Your task to perform on an android device: Open calendar and show me the third week of next month Image 0: 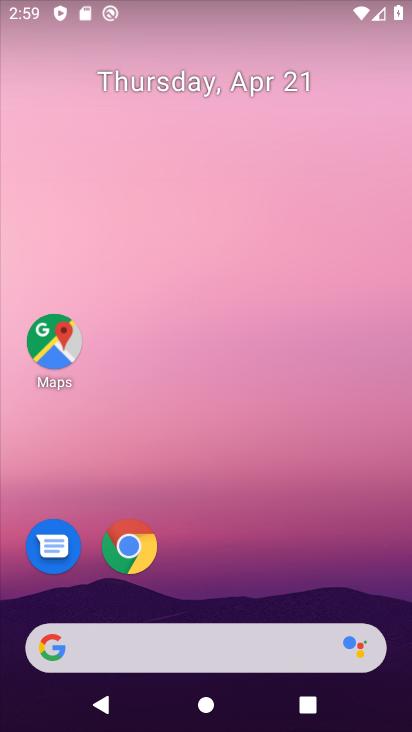
Step 0: drag from (227, 598) to (135, 2)
Your task to perform on an android device: Open calendar and show me the third week of next month Image 1: 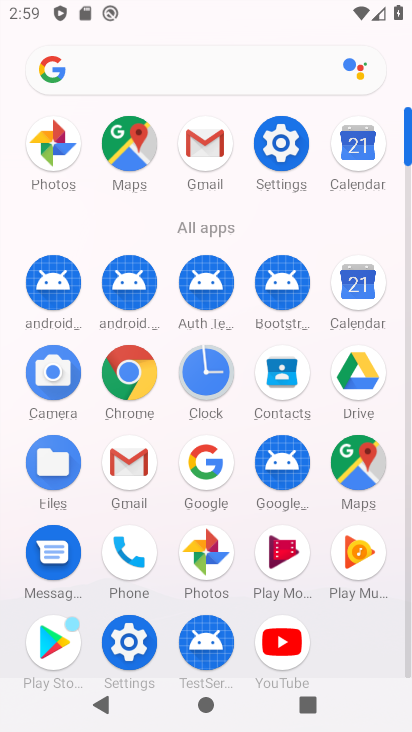
Step 1: click (368, 285)
Your task to perform on an android device: Open calendar and show me the third week of next month Image 2: 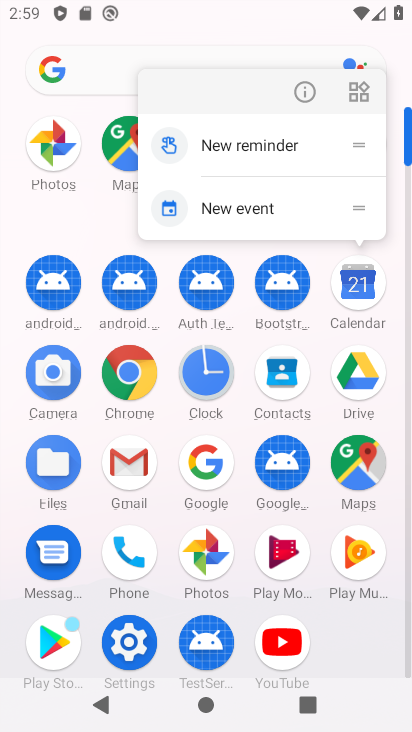
Step 2: click (368, 284)
Your task to perform on an android device: Open calendar and show me the third week of next month Image 3: 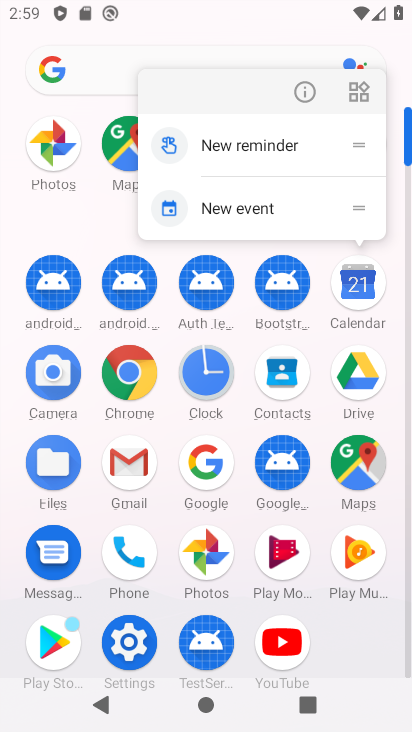
Step 3: click (368, 284)
Your task to perform on an android device: Open calendar and show me the third week of next month Image 4: 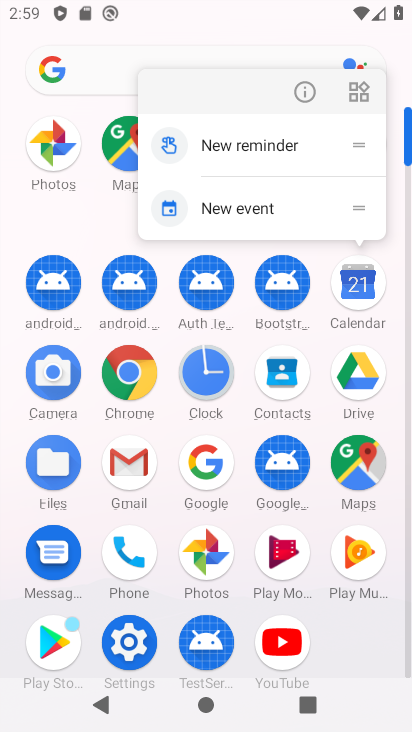
Step 4: click (368, 284)
Your task to perform on an android device: Open calendar and show me the third week of next month Image 5: 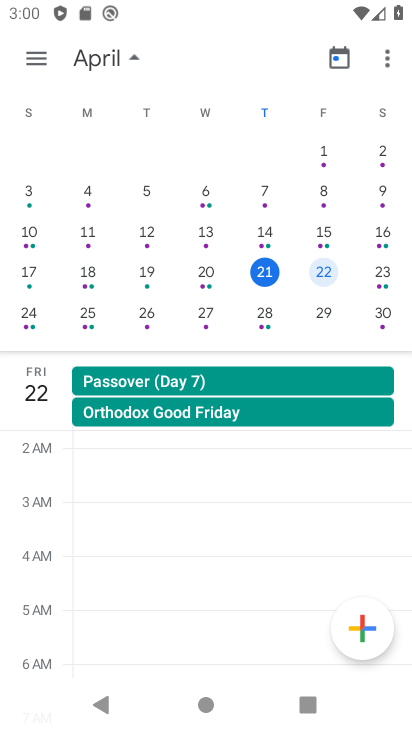
Step 5: click (27, 63)
Your task to perform on an android device: Open calendar and show me the third week of next month Image 6: 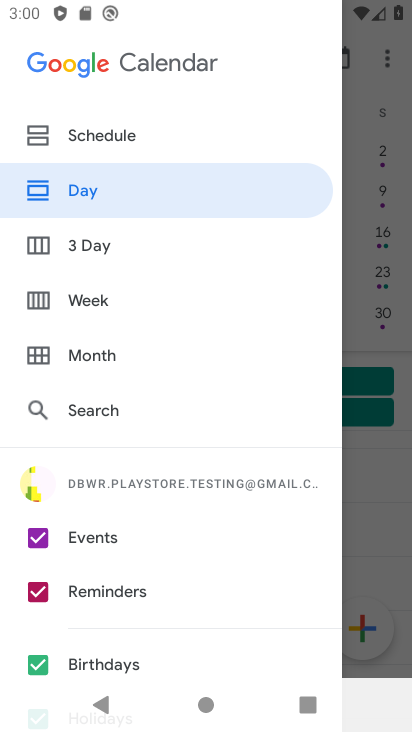
Step 6: click (86, 296)
Your task to perform on an android device: Open calendar and show me the third week of next month Image 7: 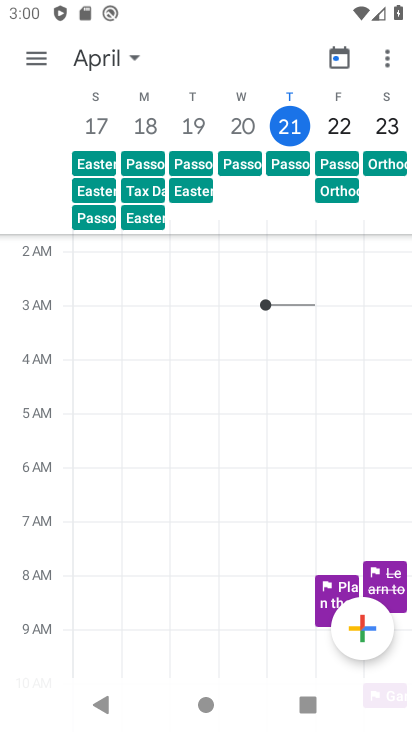
Step 7: click (99, 55)
Your task to perform on an android device: Open calendar and show me the third week of next month Image 8: 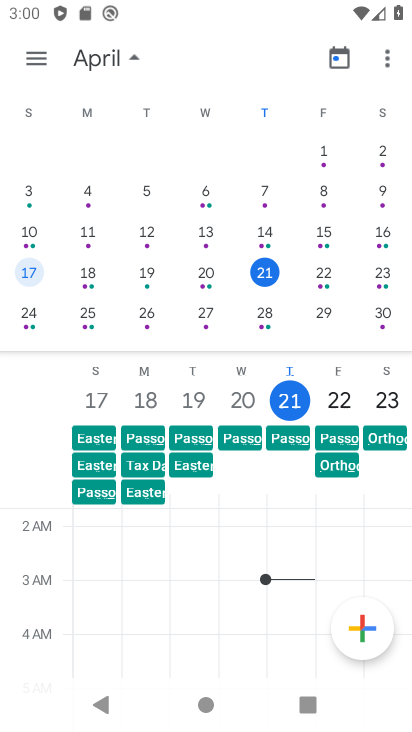
Step 8: click (53, 162)
Your task to perform on an android device: Open calendar and show me the third week of next month Image 9: 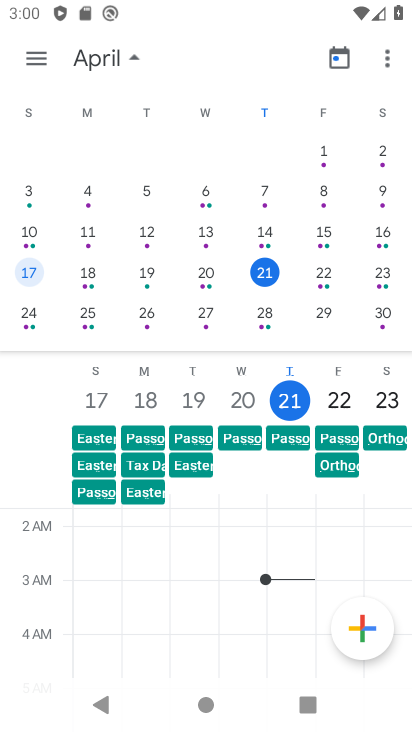
Step 9: drag from (395, 230) to (0, 159)
Your task to perform on an android device: Open calendar and show me the third week of next month Image 10: 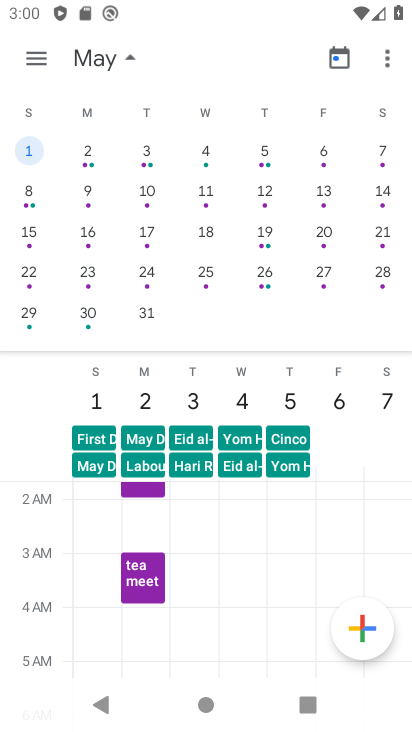
Step 10: click (266, 229)
Your task to perform on an android device: Open calendar and show me the third week of next month Image 11: 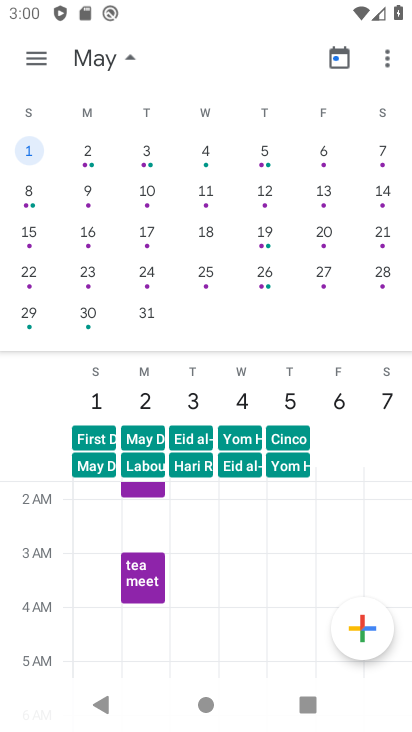
Step 11: click (266, 229)
Your task to perform on an android device: Open calendar and show me the third week of next month Image 12: 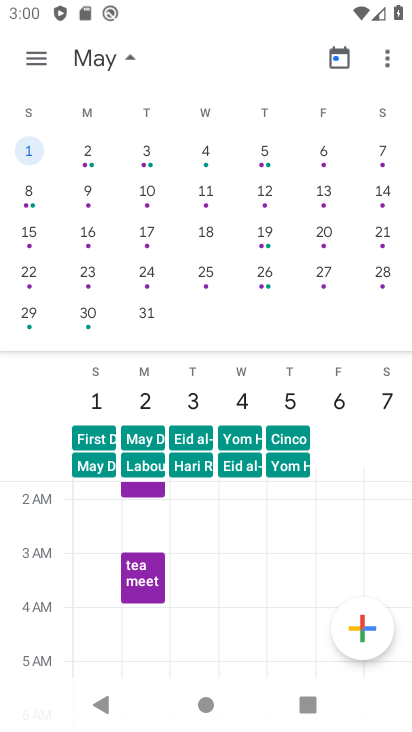
Step 12: click (266, 229)
Your task to perform on an android device: Open calendar and show me the third week of next month Image 13: 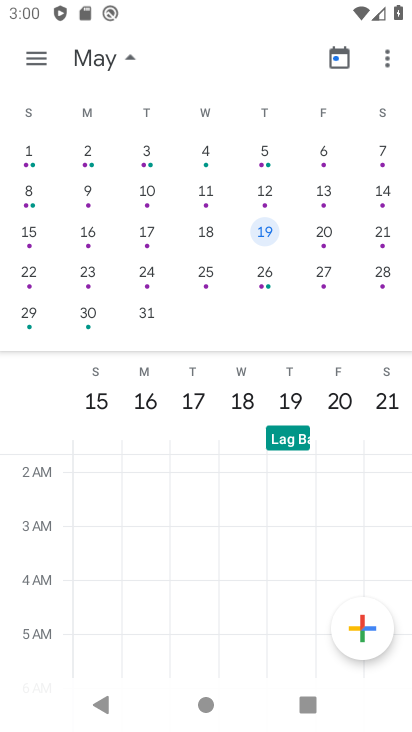
Step 13: click (266, 229)
Your task to perform on an android device: Open calendar and show me the third week of next month Image 14: 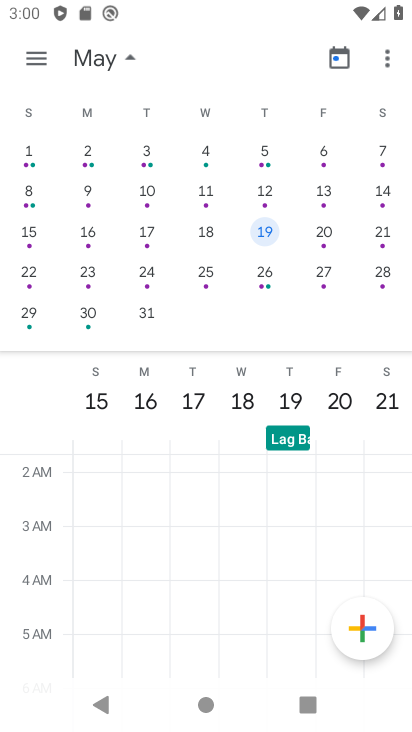
Step 14: task complete